Your task to perform on an android device: turn off priority inbox in the gmail app Image 0: 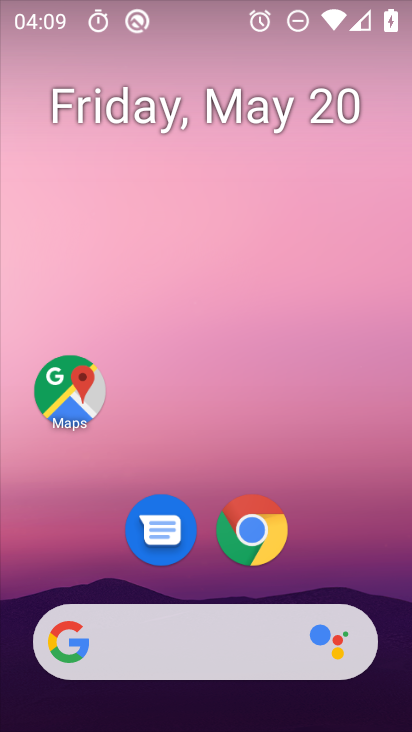
Step 0: drag from (391, 640) to (371, 272)
Your task to perform on an android device: turn off priority inbox in the gmail app Image 1: 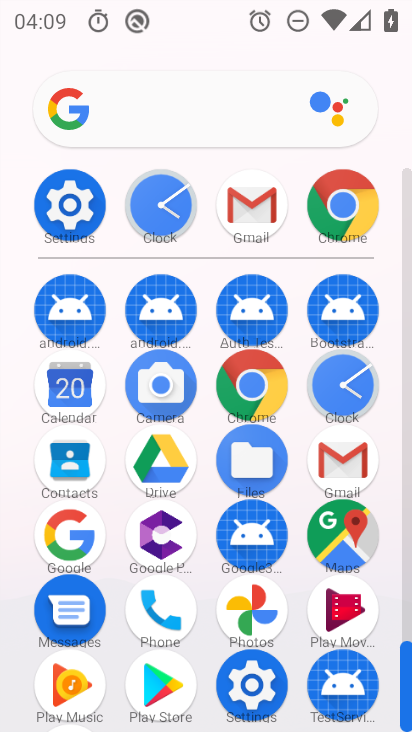
Step 1: click (351, 470)
Your task to perform on an android device: turn off priority inbox in the gmail app Image 2: 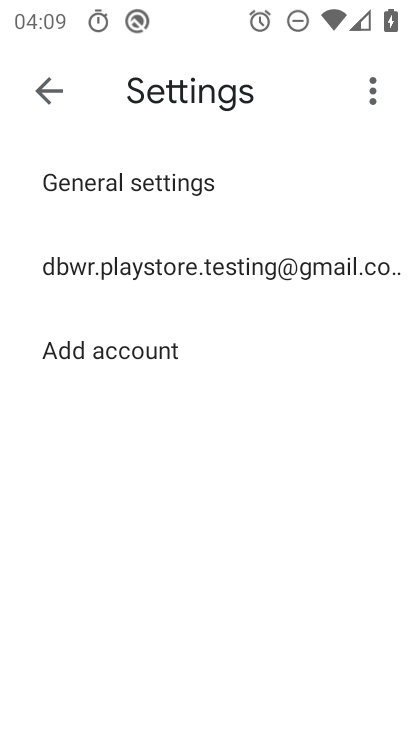
Step 2: click (99, 267)
Your task to perform on an android device: turn off priority inbox in the gmail app Image 3: 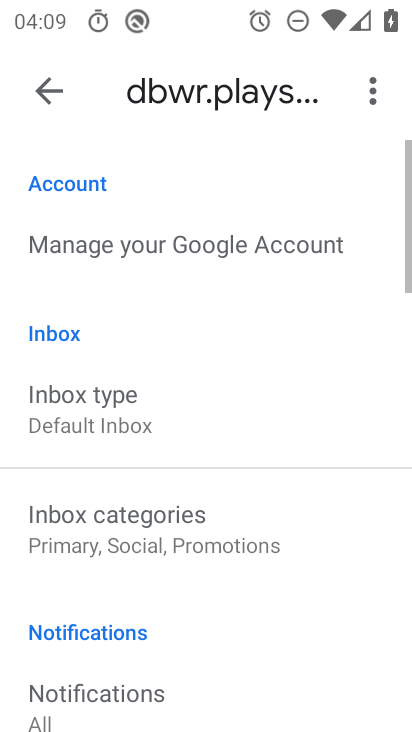
Step 3: click (84, 402)
Your task to perform on an android device: turn off priority inbox in the gmail app Image 4: 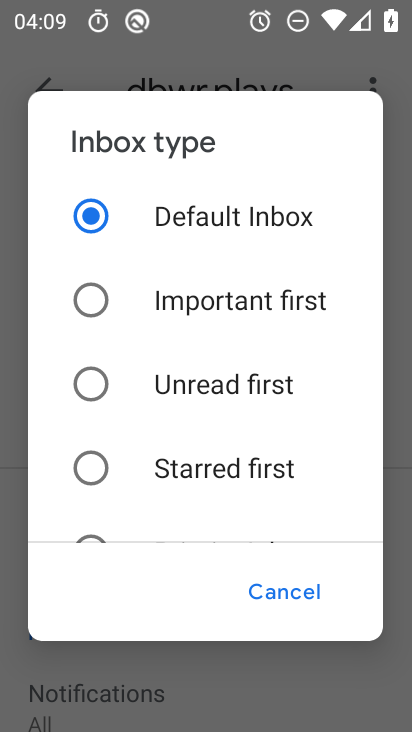
Step 4: task complete